Your task to perform on an android device: turn off wifi Image 0: 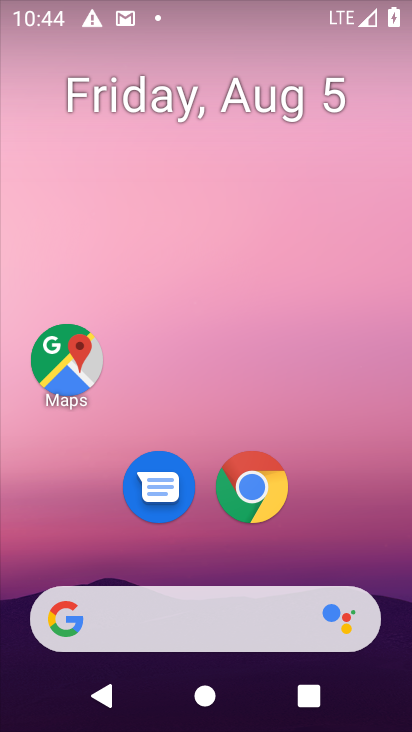
Step 0: drag from (113, 58) to (200, 570)
Your task to perform on an android device: turn off wifi Image 1: 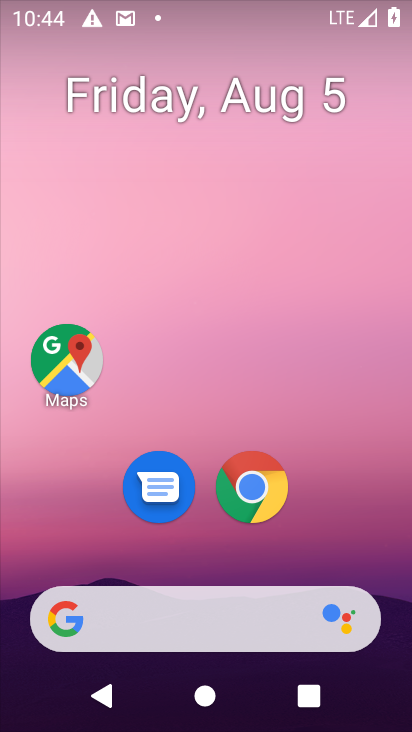
Step 1: task complete